Your task to perform on an android device: Open Amazon Image 0: 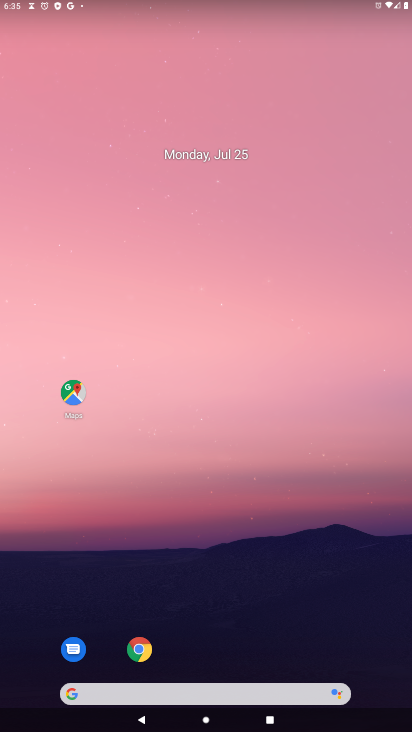
Step 0: drag from (255, 690) to (269, 578)
Your task to perform on an android device: Open Amazon Image 1: 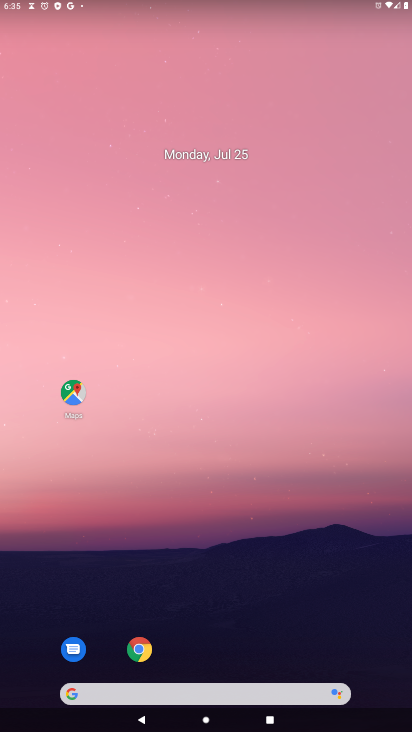
Step 1: drag from (186, 561) to (217, 1)
Your task to perform on an android device: Open Amazon Image 2: 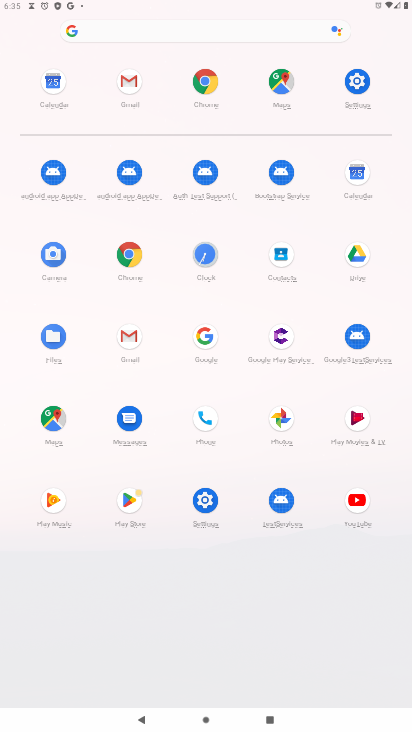
Step 2: click (125, 250)
Your task to perform on an android device: Open Amazon Image 3: 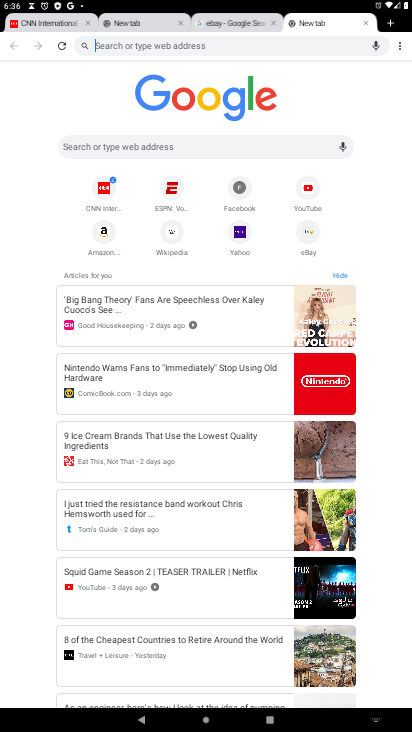
Step 3: click (105, 236)
Your task to perform on an android device: Open Amazon Image 4: 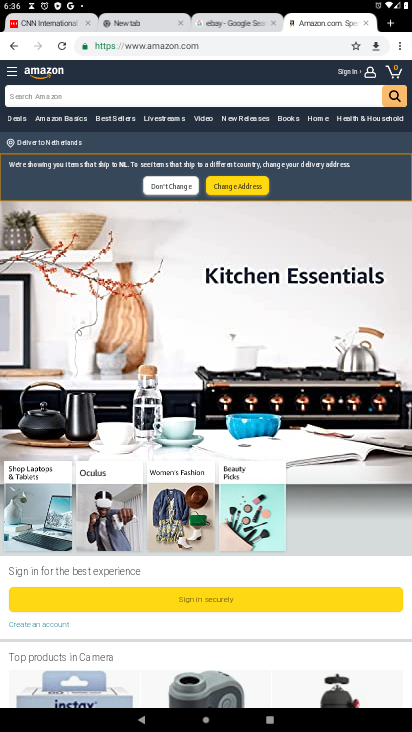
Step 4: task complete